Your task to perform on an android device: Open network settings Image 0: 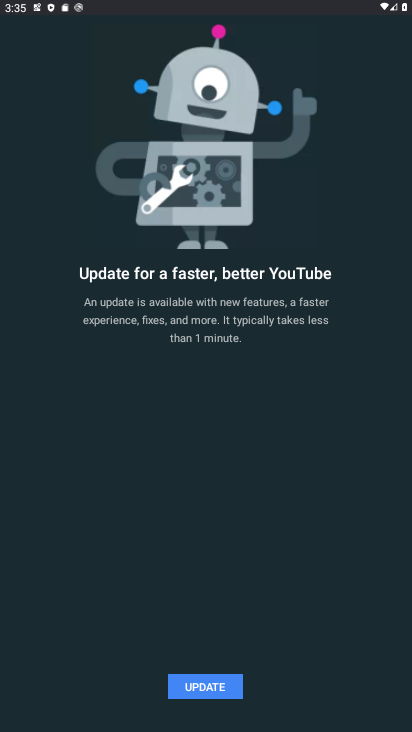
Step 0: press home button
Your task to perform on an android device: Open network settings Image 1: 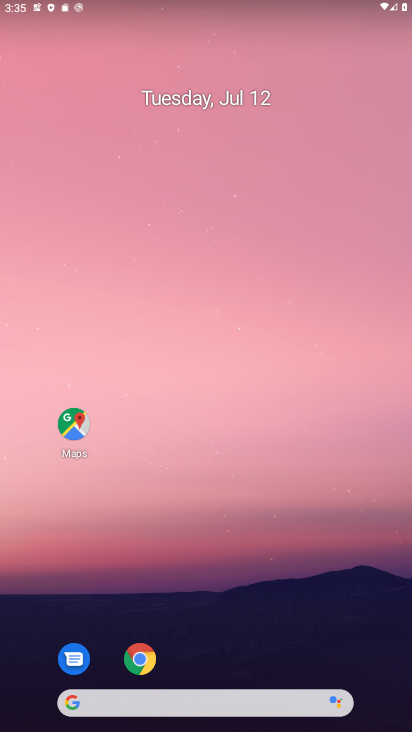
Step 1: drag from (231, 686) to (238, 188)
Your task to perform on an android device: Open network settings Image 2: 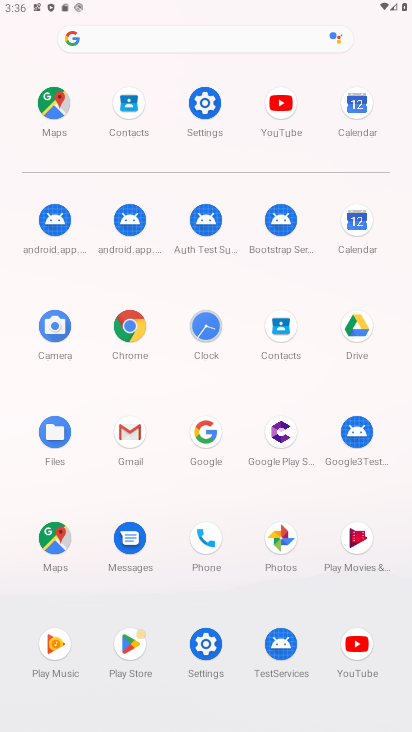
Step 2: click (206, 101)
Your task to perform on an android device: Open network settings Image 3: 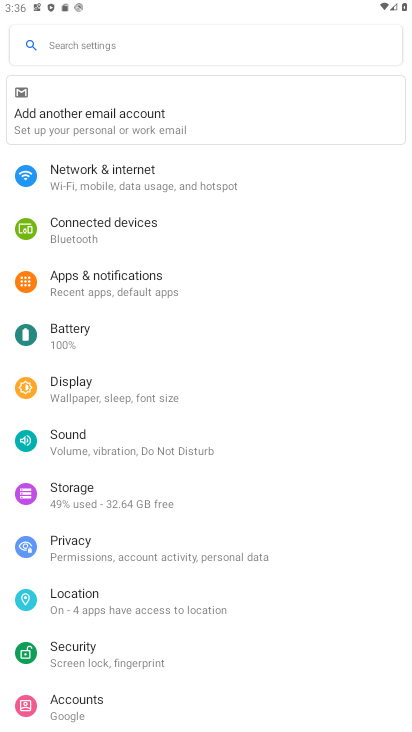
Step 3: click (126, 176)
Your task to perform on an android device: Open network settings Image 4: 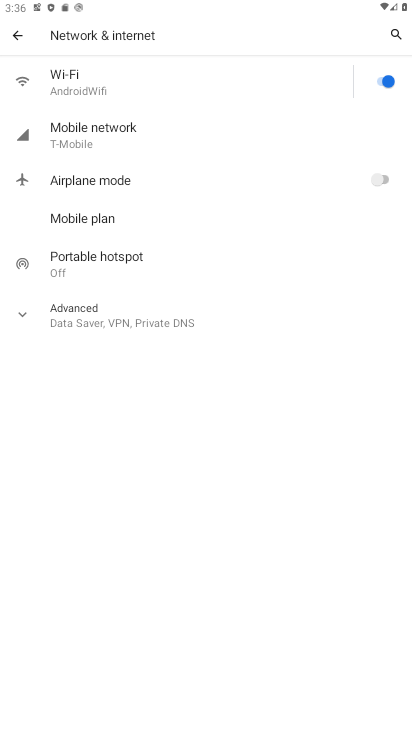
Step 4: click (91, 134)
Your task to perform on an android device: Open network settings Image 5: 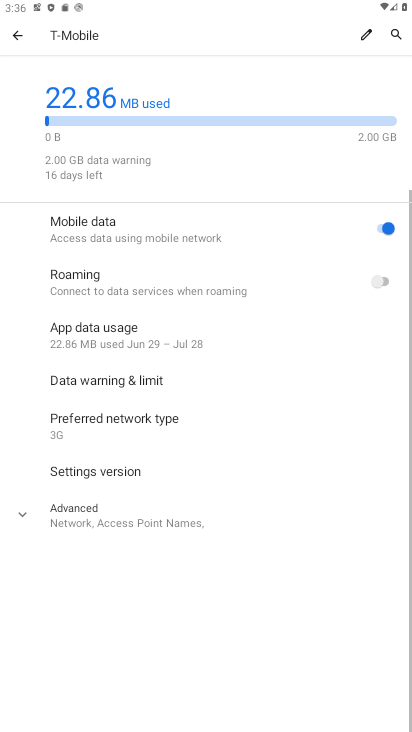
Step 5: task complete